Your task to perform on an android device: search for starred emails in the gmail app Image 0: 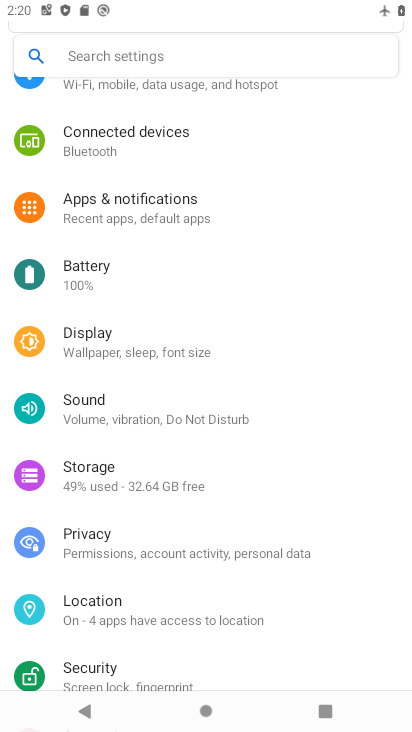
Step 0: press home button
Your task to perform on an android device: search for starred emails in the gmail app Image 1: 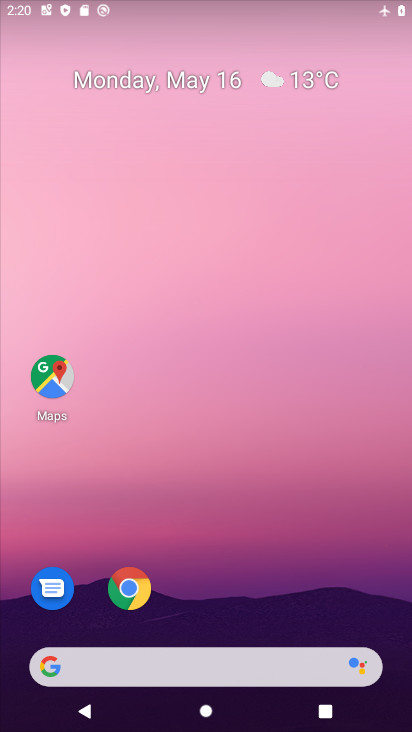
Step 1: drag from (251, 683) to (212, 40)
Your task to perform on an android device: search for starred emails in the gmail app Image 2: 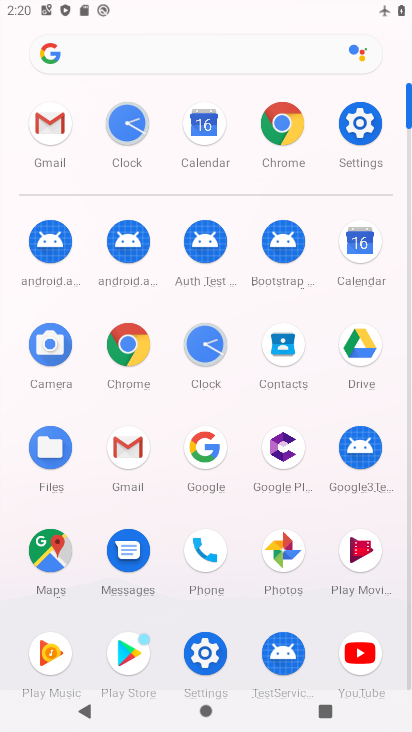
Step 2: click (131, 445)
Your task to perform on an android device: search for starred emails in the gmail app Image 3: 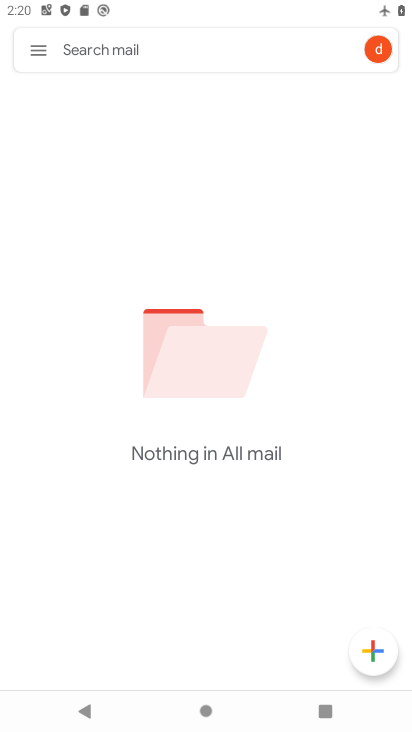
Step 3: click (34, 50)
Your task to perform on an android device: search for starred emails in the gmail app Image 4: 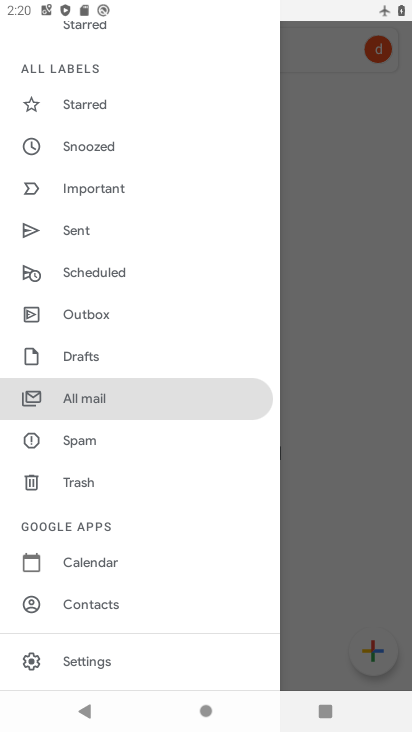
Step 4: drag from (120, 242) to (141, 546)
Your task to perform on an android device: search for starred emails in the gmail app Image 5: 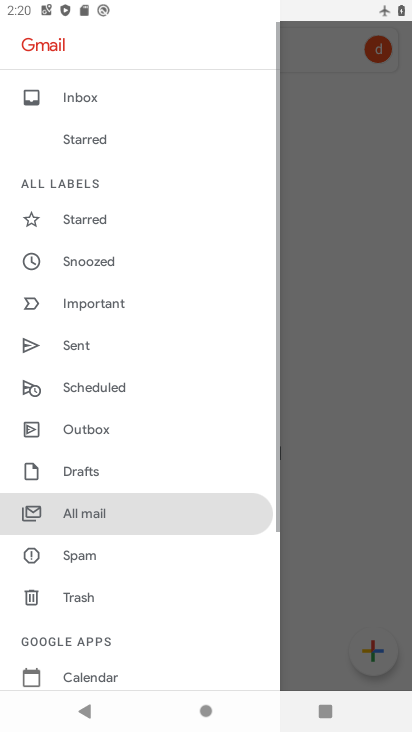
Step 5: click (103, 225)
Your task to perform on an android device: search for starred emails in the gmail app Image 6: 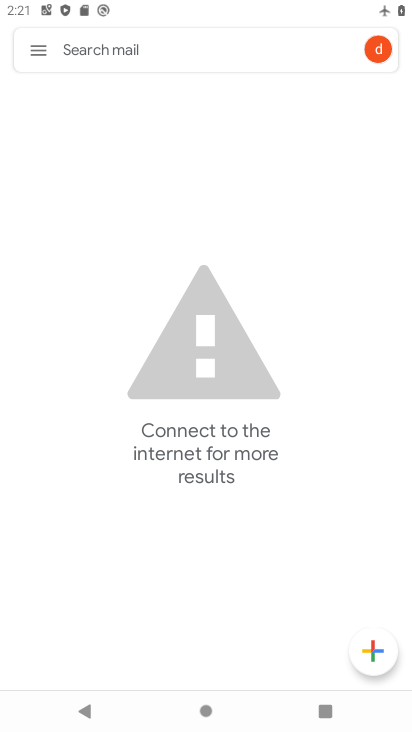
Step 6: task complete